Your task to perform on an android device: open wifi settings Image 0: 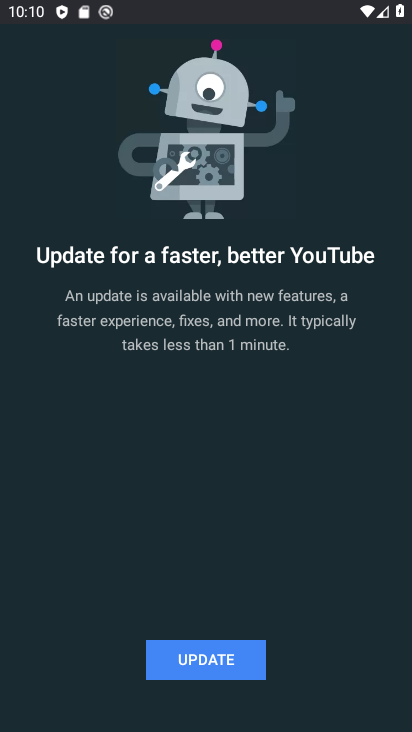
Step 0: press home button
Your task to perform on an android device: open wifi settings Image 1: 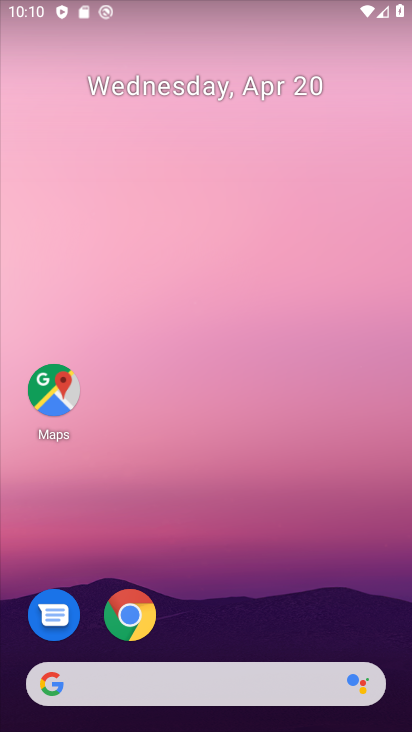
Step 1: drag from (233, 595) to (233, 234)
Your task to perform on an android device: open wifi settings Image 2: 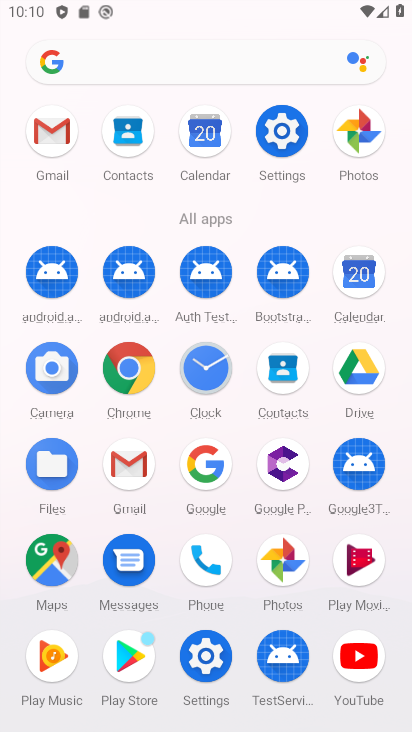
Step 2: click (278, 144)
Your task to perform on an android device: open wifi settings Image 3: 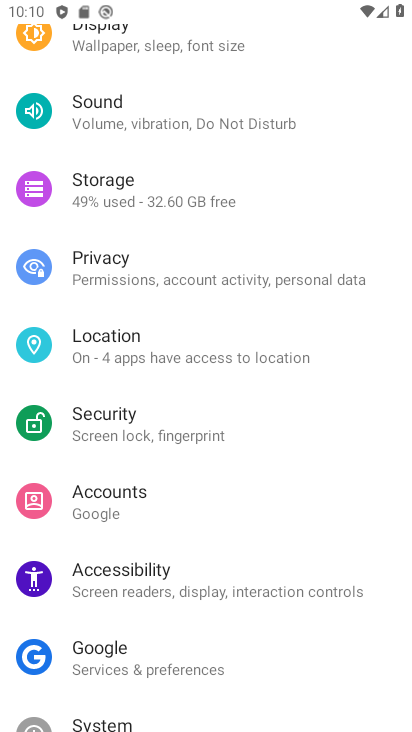
Step 3: drag from (224, 146) to (201, 614)
Your task to perform on an android device: open wifi settings Image 4: 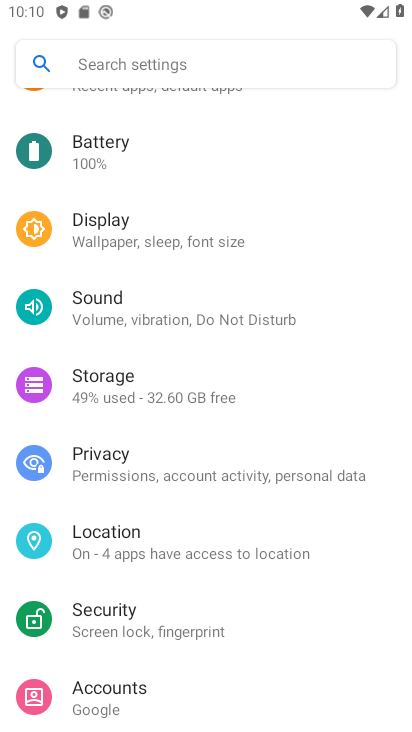
Step 4: drag from (191, 165) to (205, 601)
Your task to perform on an android device: open wifi settings Image 5: 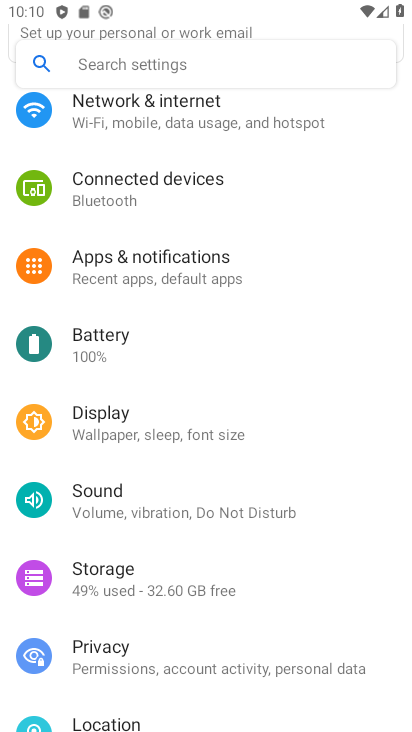
Step 5: click (147, 119)
Your task to perform on an android device: open wifi settings Image 6: 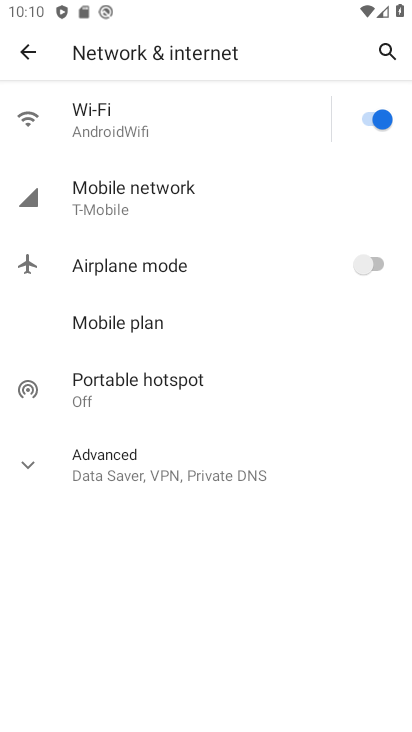
Step 6: click (147, 119)
Your task to perform on an android device: open wifi settings Image 7: 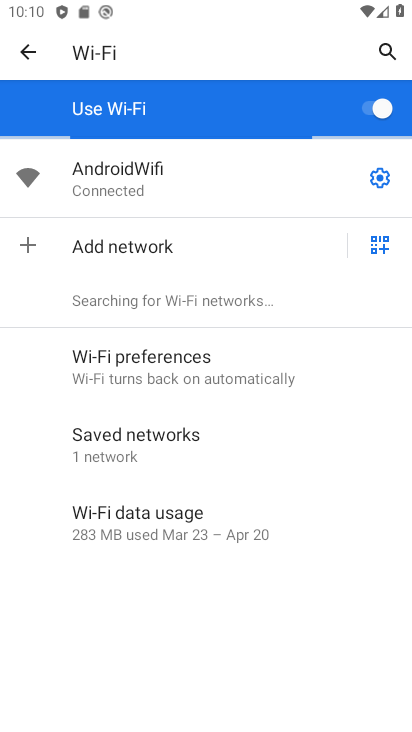
Step 7: task complete